Your task to perform on an android device: change the clock style Image 0: 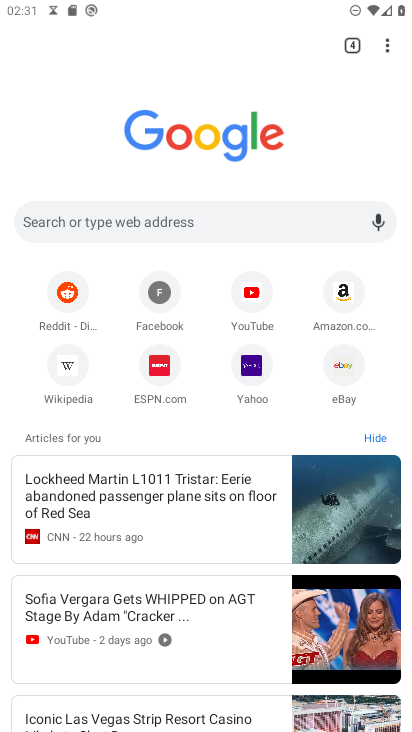
Step 0: press home button
Your task to perform on an android device: change the clock style Image 1: 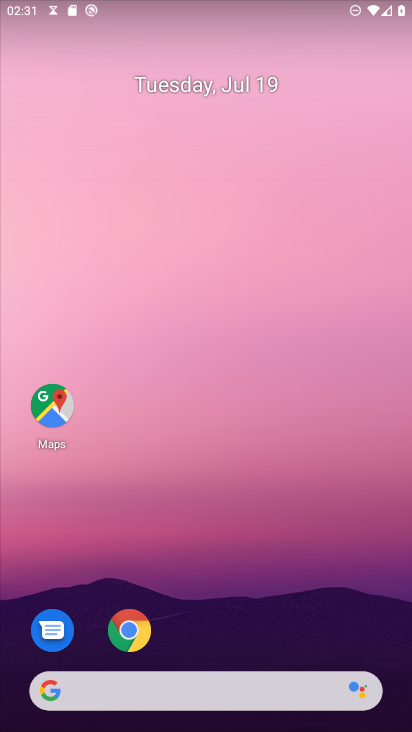
Step 1: drag from (160, 687) to (293, 109)
Your task to perform on an android device: change the clock style Image 2: 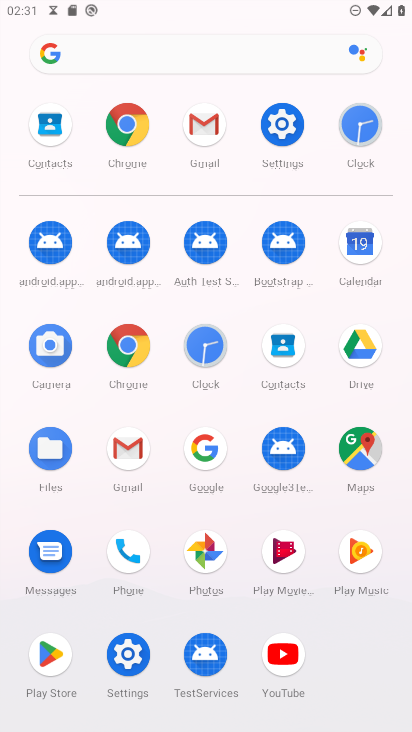
Step 2: click (368, 130)
Your task to perform on an android device: change the clock style Image 3: 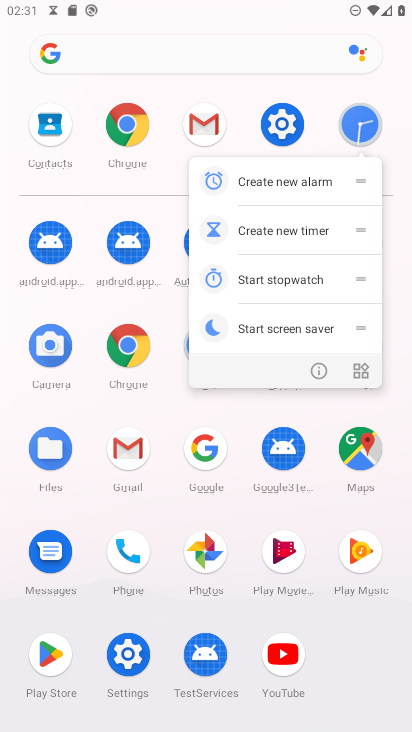
Step 3: click (356, 122)
Your task to perform on an android device: change the clock style Image 4: 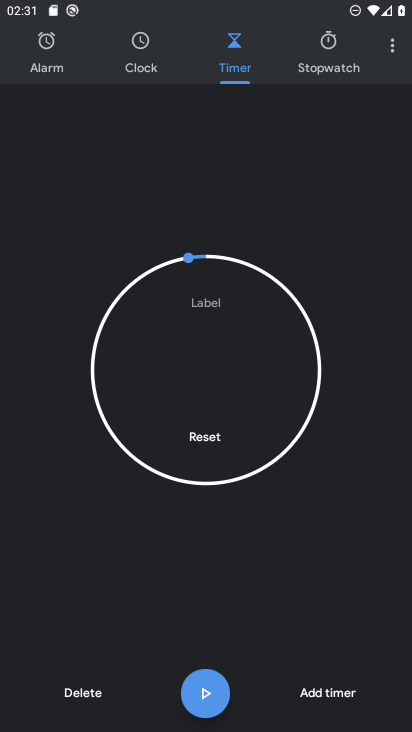
Step 4: click (388, 45)
Your task to perform on an android device: change the clock style Image 5: 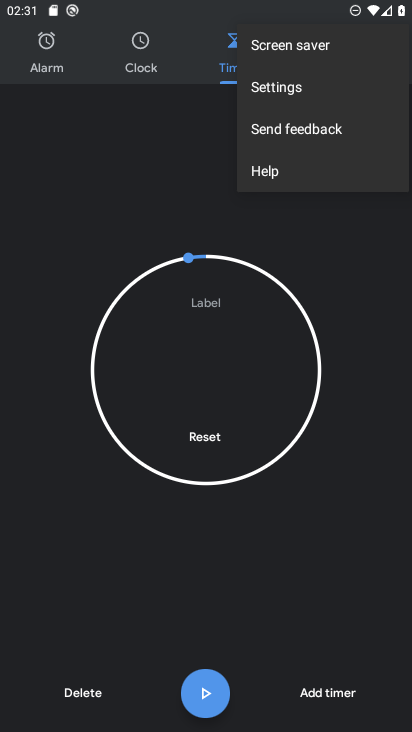
Step 5: click (270, 90)
Your task to perform on an android device: change the clock style Image 6: 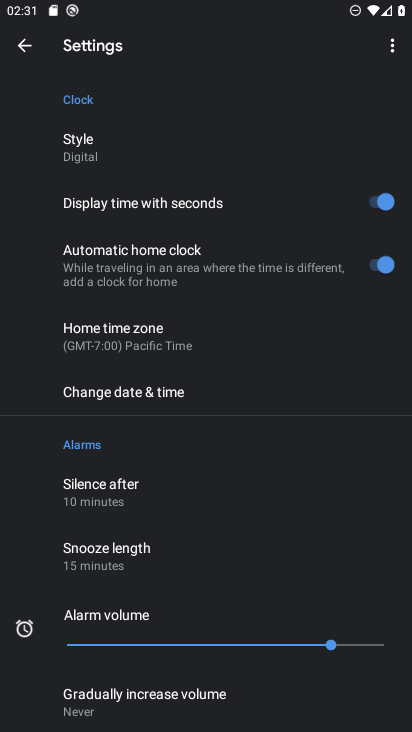
Step 6: click (74, 154)
Your task to perform on an android device: change the clock style Image 7: 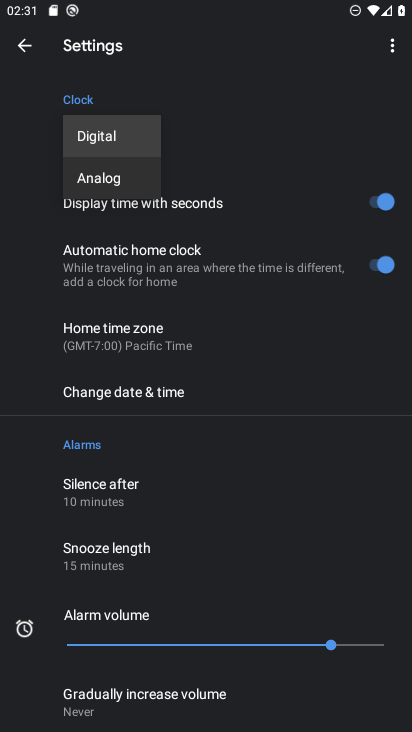
Step 7: click (102, 175)
Your task to perform on an android device: change the clock style Image 8: 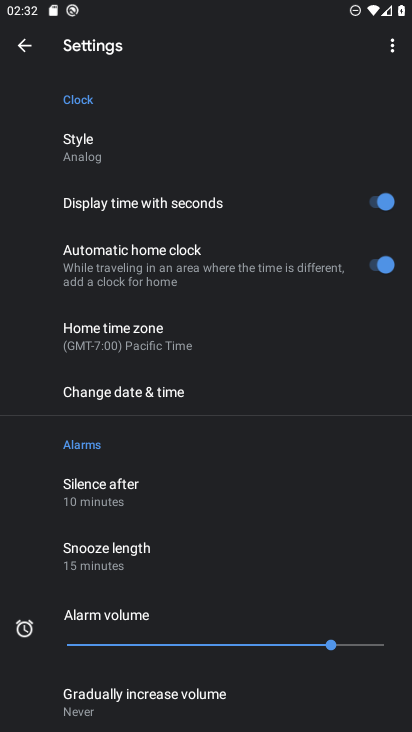
Step 8: task complete